Your task to perform on an android device: Open privacy settings Image 0: 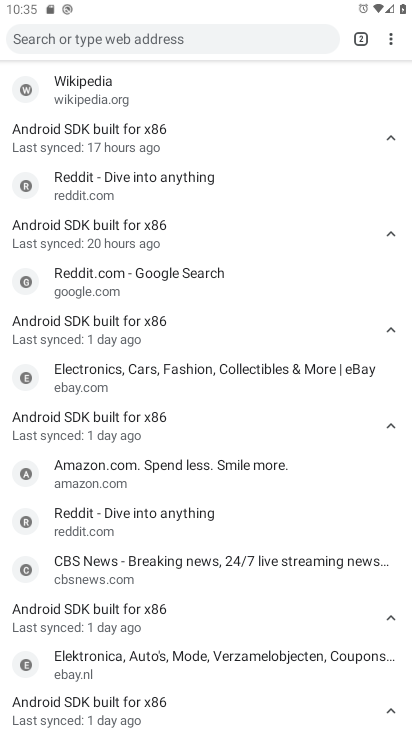
Step 0: press home button
Your task to perform on an android device: Open privacy settings Image 1: 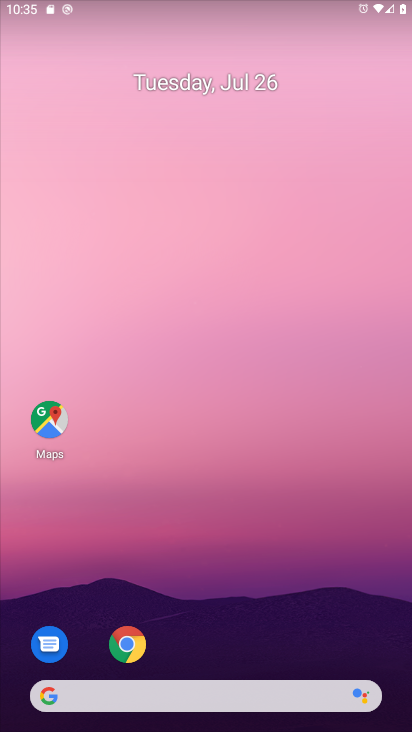
Step 1: drag from (225, 657) to (219, 125)
Your task to perform on an android device: Open privacy settings Image 2: 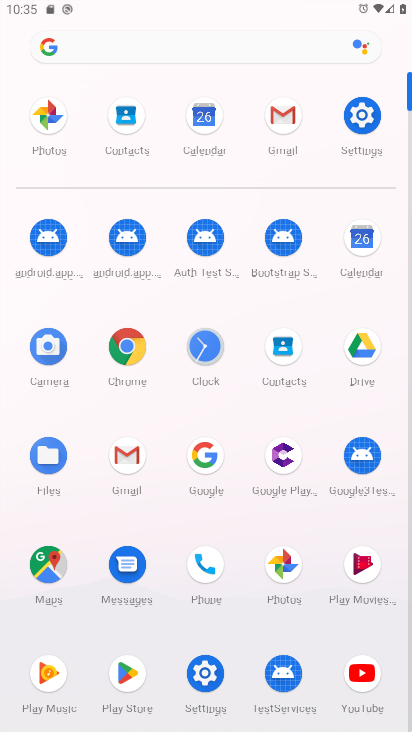
Step 2: click (205, 670)
Your task to perform on an android device: Open privacy settings Image 3: 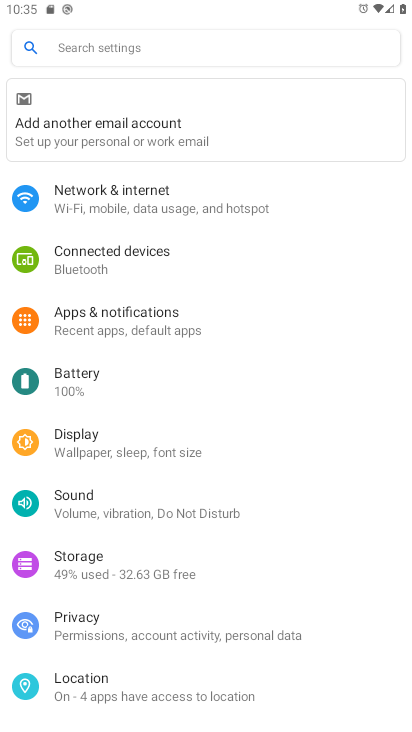
Step 3: click (103, 636)
Your task to perform on an android device: Open privacy settings Image 4: 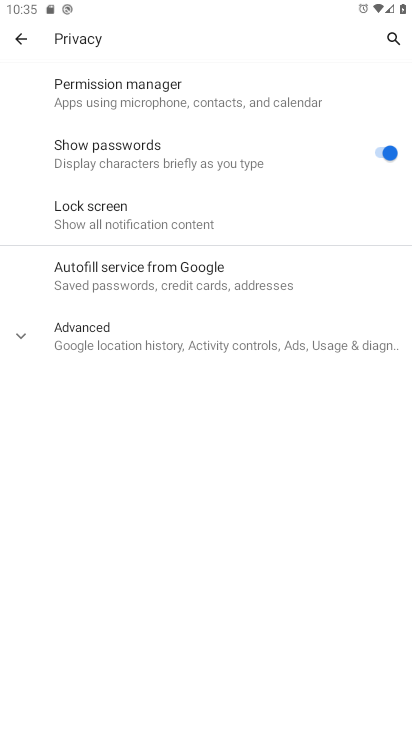
Step 4: task complete